Your task to perform on an android device: see tabs open on other devices in the chrome app Image 0: 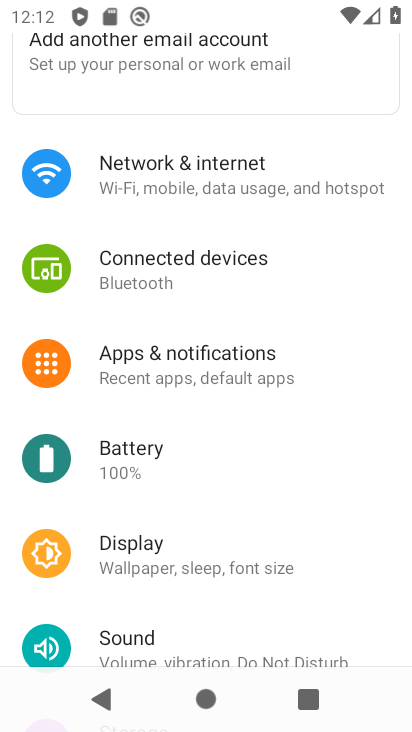
Step 0: press home button
Your task to perform on an android device: see tabs open on other devices in the chrome app Image 1: 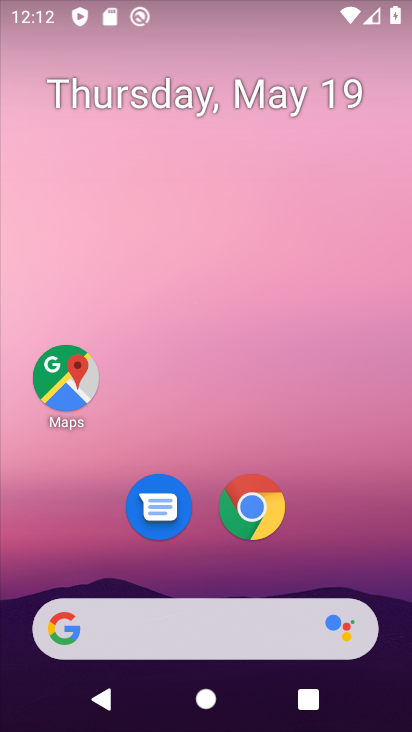
Step 1: drag from (204, 556) to (227, 149)
Your task to perform on an android device: see tabs open on other devices in the chrome app Image 2: 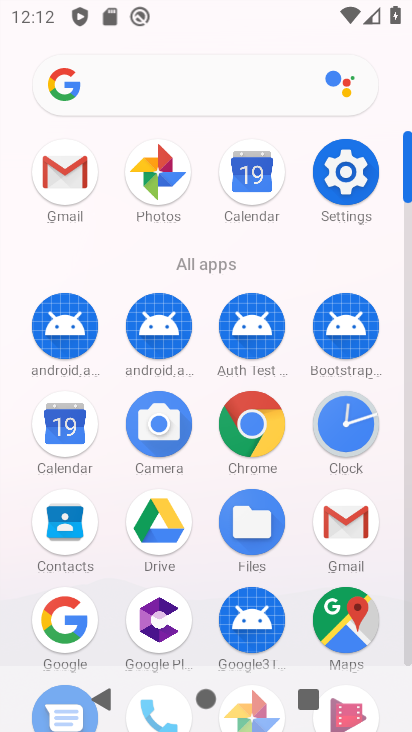
Step 2: click (260, 431)
Your task to perform on an android device: see tabs open on other devices in the chrome app Image 3: 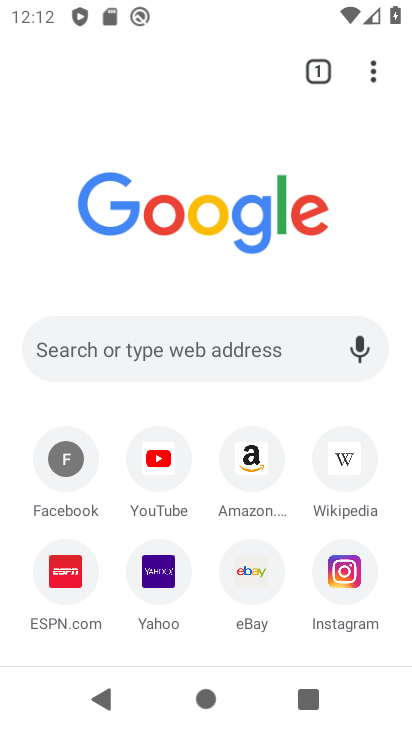
Step 3: click (375, 84)
Your task to perform on an android device: see tabs open on other devices in the chrome app Image 4: 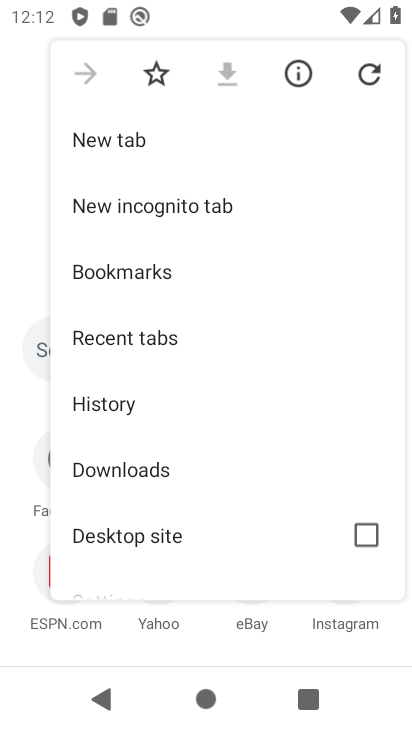
Step 4: click (150, 350)
Your task to perform on an android device: see tabs open on other devices in the chrome app Image 5: 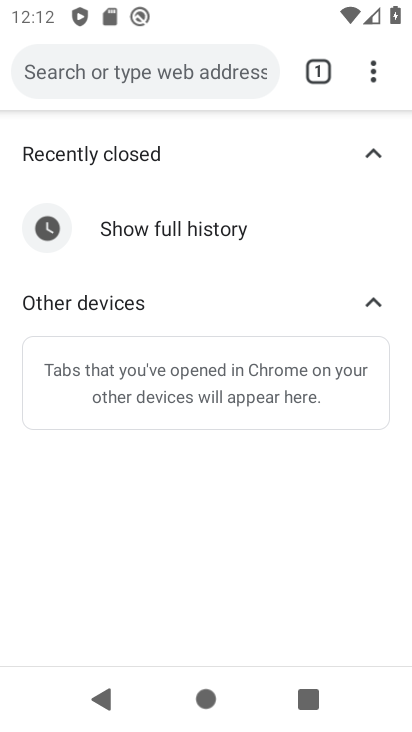
Step 5: task complete